Your task to perform on an android device: allow notifications from all sites in the chrome app Image 0: 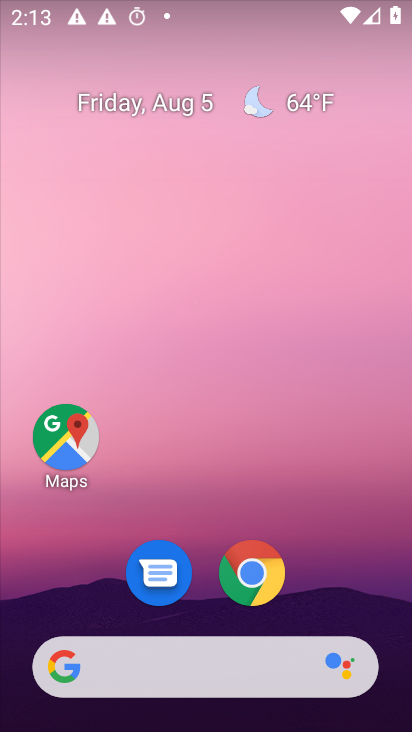
Step 0: press home button
Your task to perform on an android device: allow notifications from all sites in the chrome app Image 1: 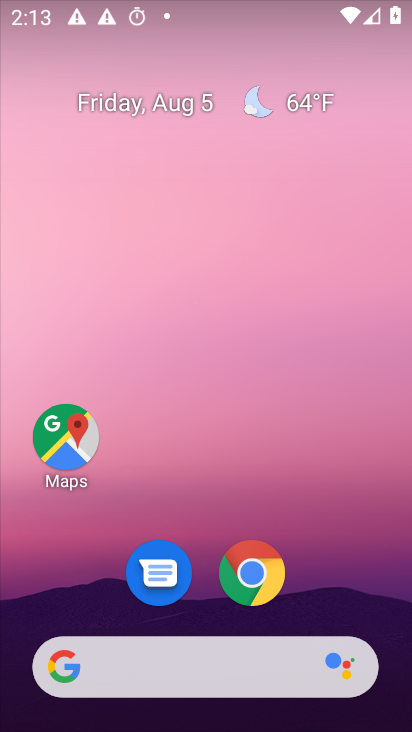
Step 1: drag from (359, 582) to (353, 279)
Your task to perform on an android device: allow notifications from all sites in the chrome app Image 2: 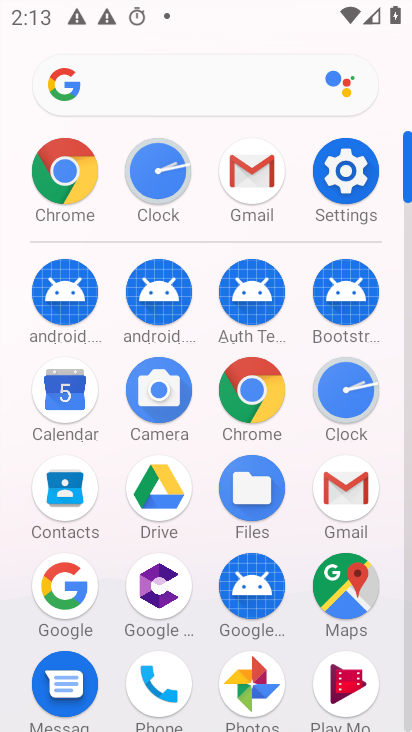
Step 2: click (255, 395)
Your task to perform on an android device: allow notifications from all sites in the chrome app Image 3: 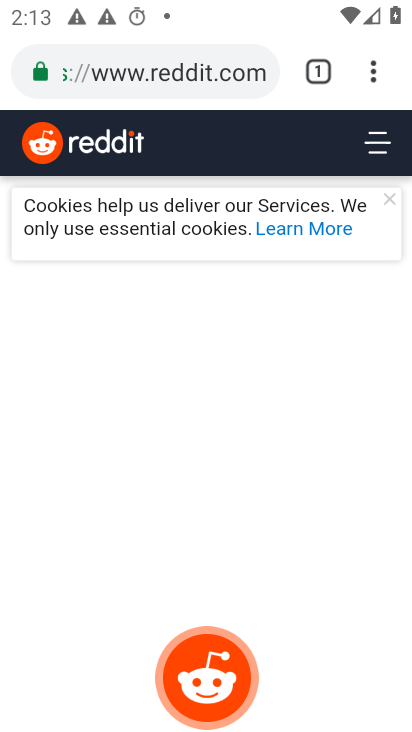
Step 3: click (375, 74)
Your task to perform on an android device: allow notifications from all sites in the chrome app Image 4: 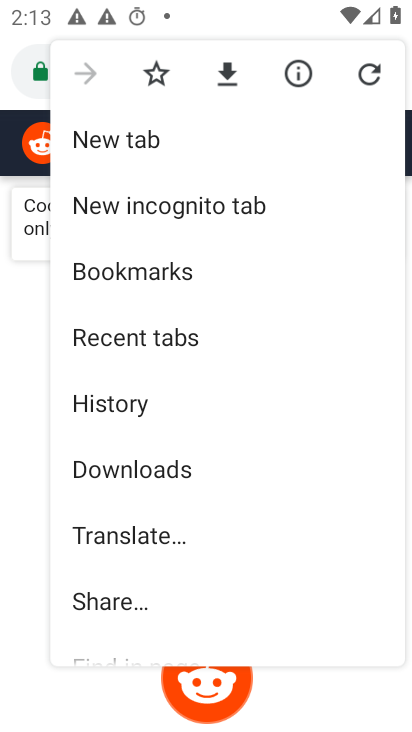
Step 4: drag from (322, 483) to (342, 383)
Your task to perform on an android device: allow notifications from all sites in the chrome app Image 5: 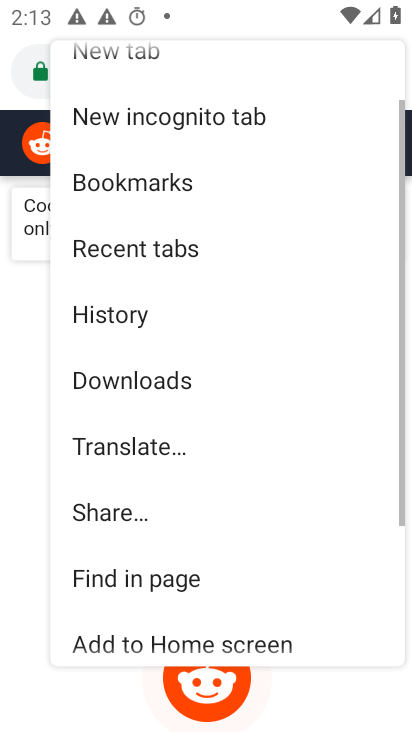
Step 5: drag from (317, 552) to (331, 451)
Your task to perform on an android device: allow notifications from all sites in the chrome app Image 6: 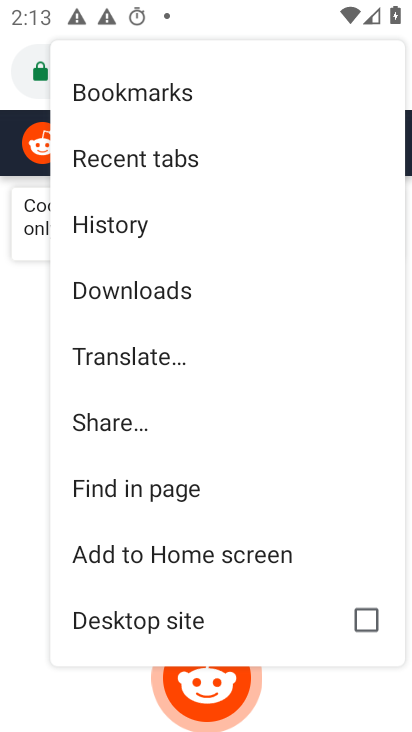
Step 6: drag from (292, 595) to (305, 428)
Your task to perform on an android device: allow notifications from all sites in the chrome app Image 7: 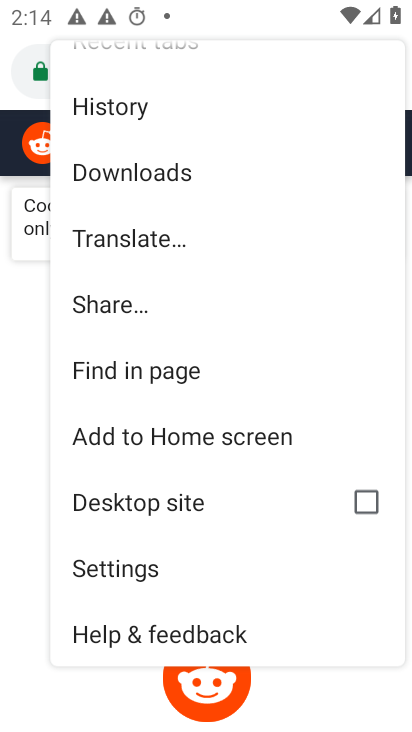
Step 7: click (149, 582)
Your task to perform on an android device: allow notifications from all sites in the chrome app Image 8: 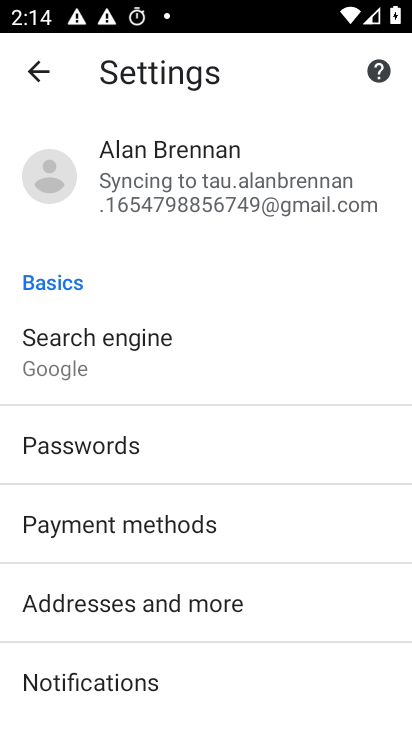
Step 8: drag from (342, 535) to (357, 420)
Your task to perform on an android device: allow notifications from all sites in the chrome app Image 9: 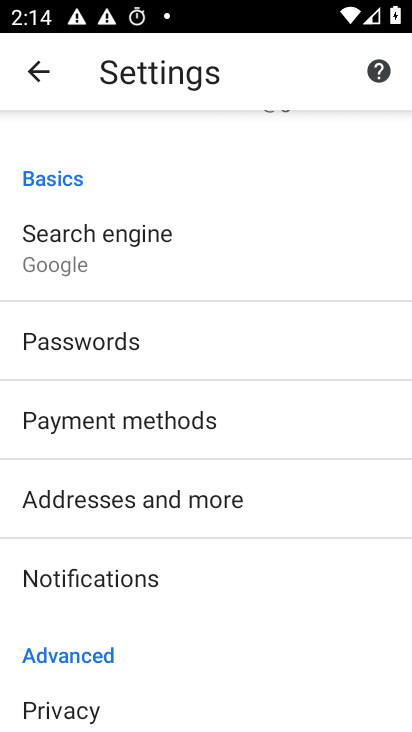
Step 9: drag from (339, 551) to (348, 467)
Your task to perform on an android device: allow notifications from all sites in the chrome app Image 10: 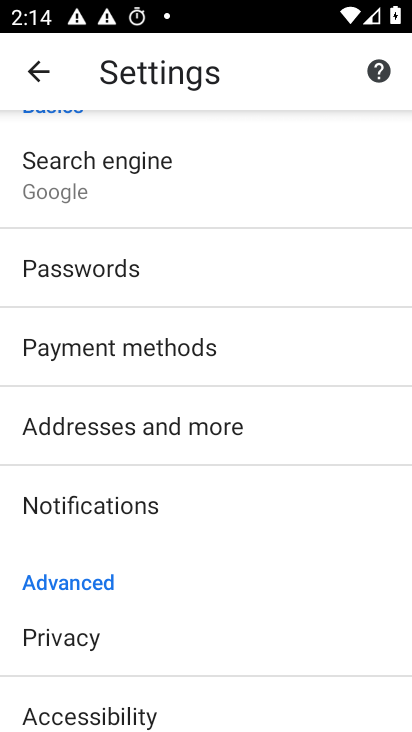
Step 10: drag from (335, 579) to (340, 471)
Your task to perform on an android device: allow notifications from all sites in the chrome app Image 11: 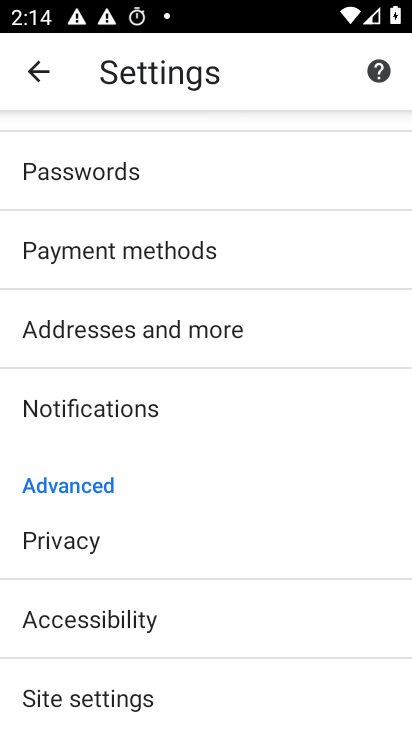
Step 11: drag from (318, 574) to (321, 489)
Your task to perform on an android device: allow notifications from all sites in the chrome app Image 12: 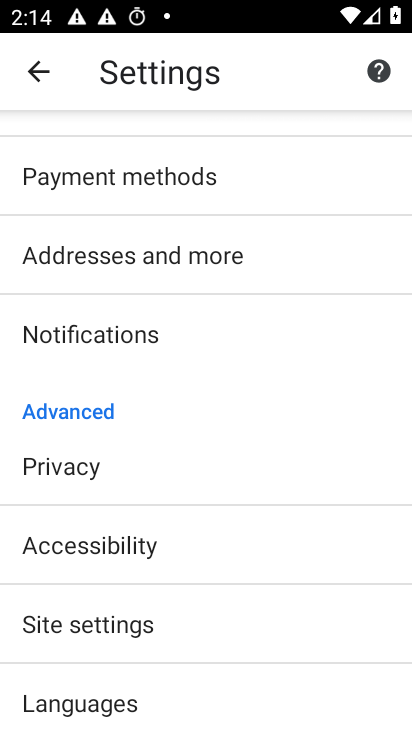
Step 12: drag from (292, 605) to (299, 506)
Your task to perform on an android device: allow notifications from all sites in the chrome app Image 13: 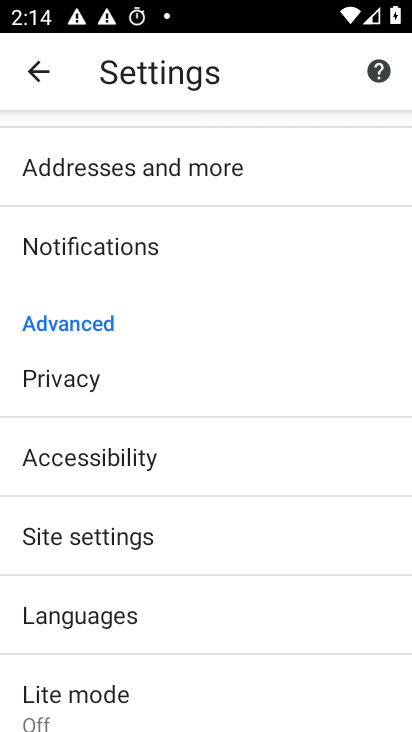
Step 13: click (277, 557)
Your task to perform on an android device: allow notifications from all sites in the chrome app Image 14: 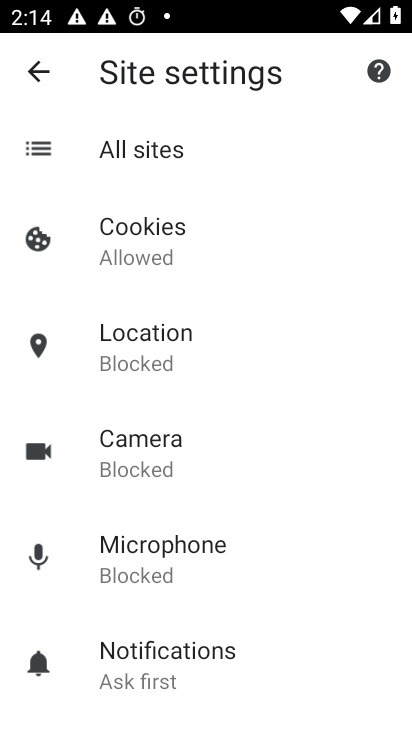
Step 14: drag from (306, 578) to (325, 503)
Your task to perform on an android device: allow notifications from all sites in the chrome app Image 15: 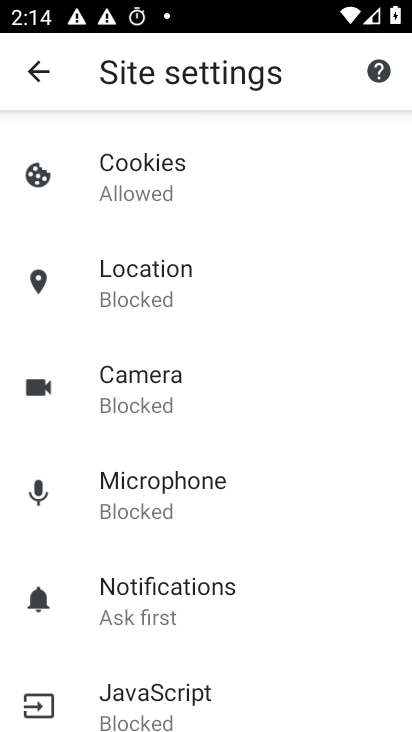
Step 15: drag from (339, 568) to (340, 502)
Your task to perform on an android device: allow notifications from all sites in the chrome app Image 16: 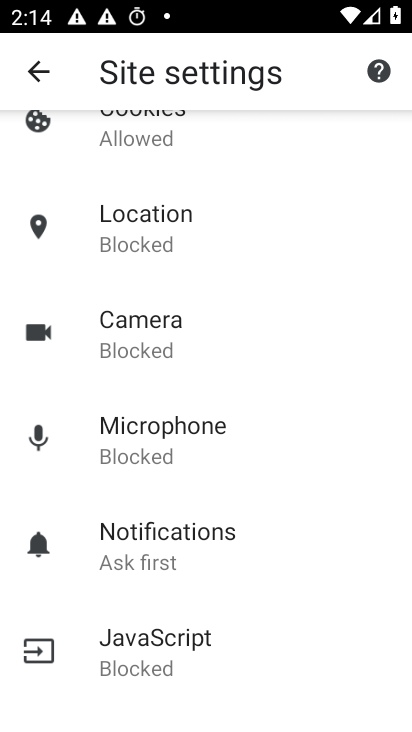
Step 16: drag from (336, 589) to (335, 471)
Your task to perform on an android device: allow notifications from all sites in the chrome app Image 17: 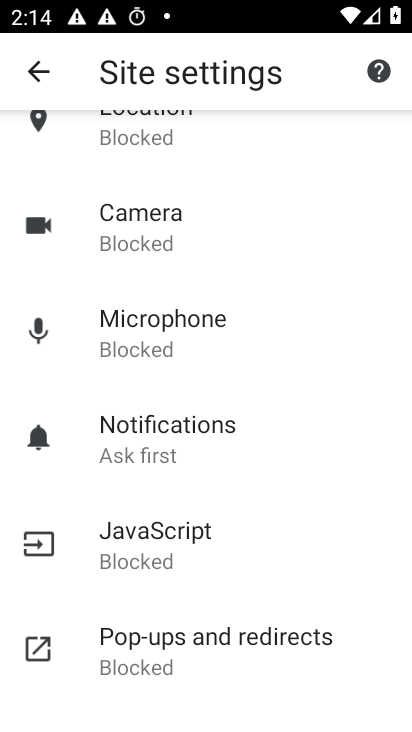
Step 17: drag from (316, 505) to (317, 422)
Your task to perform on an android device: allow notifications from all sites in the chrome app Image 18: 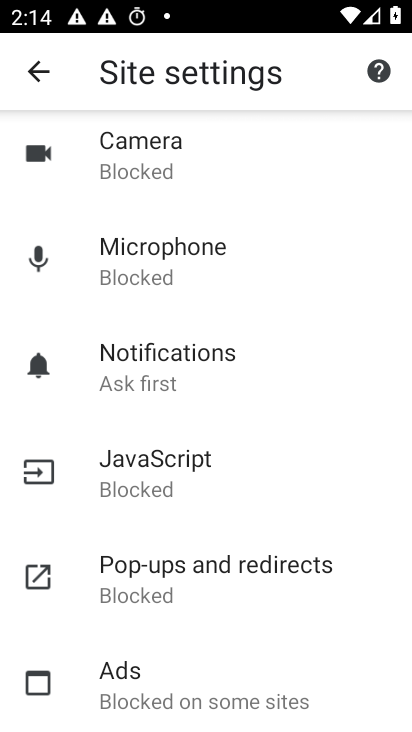
Step 18: click (220, 369)
Your task to perform on an android device: allow notifications from all sites in the chrome app Image 19: 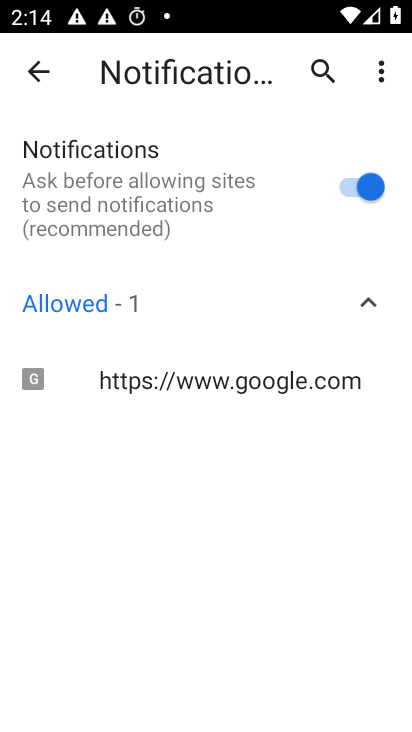
Step 19: task complete